Your task to perform on an android device: change your default location settings in chrome Image 0: 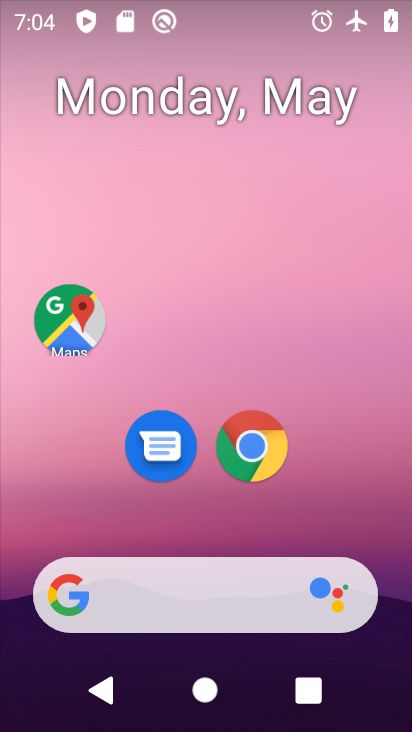
Step 0: click (261, 447)
Your task to perform on an android device: change your default location settings in chrome Image 1: 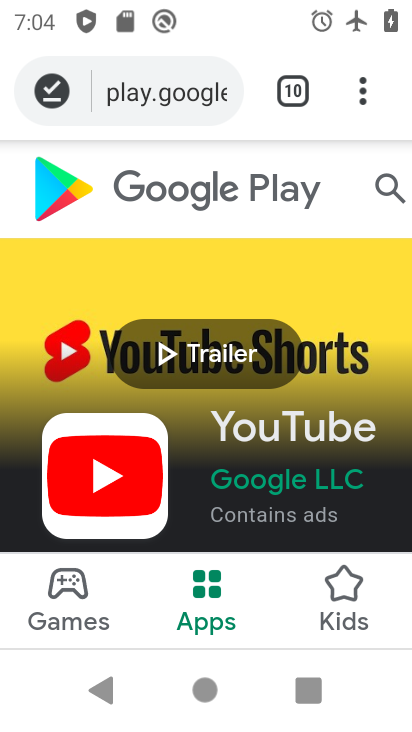
Step 1: click (361, 96)
Your task to perform on an android device: change your default location settings in chrome Image 2: 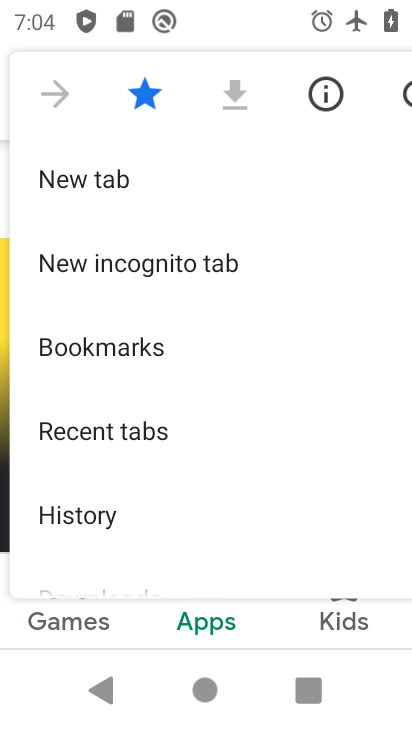
Step 2: drag from (190, 495) to (132, 293)
Your task to perform on an android device: change your default location settings in chrome Image 3: 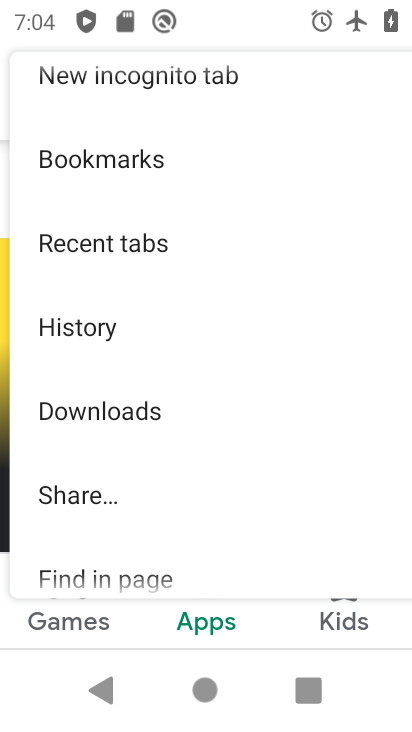
Step 3: drag from (157, 459) to (69, 104)
Your task to perform on an android device: change your default location settings in chrome Image 4: 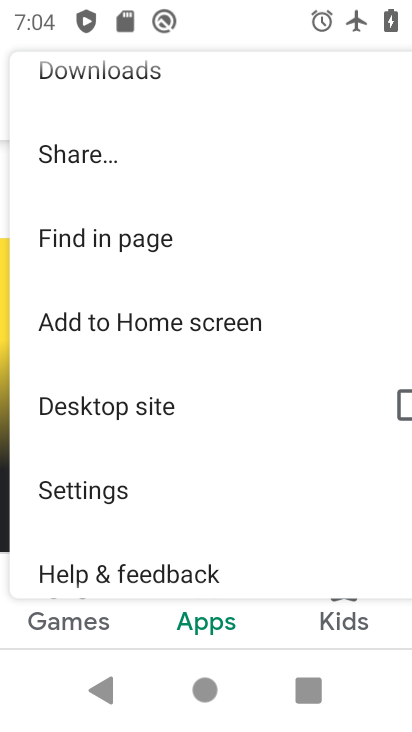
Step 4: click (103, 488)
Your task to perform on an android device: change your default location settings in chrome Image 5: 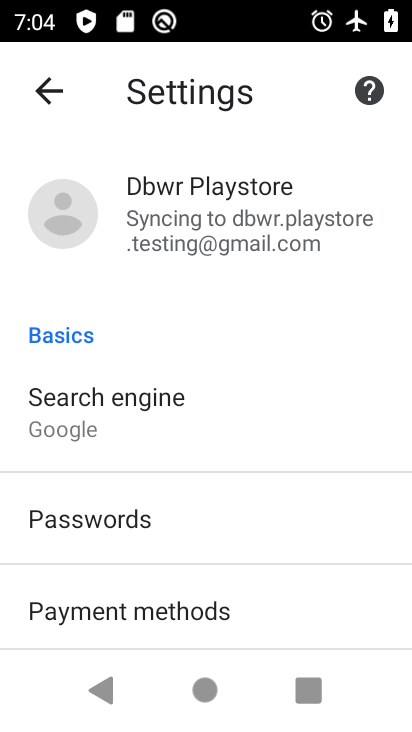
Step 5: drag from (189, 480) to (119, 218)
Your task to perform on an android device: change your default location settings in chrome Image 6: 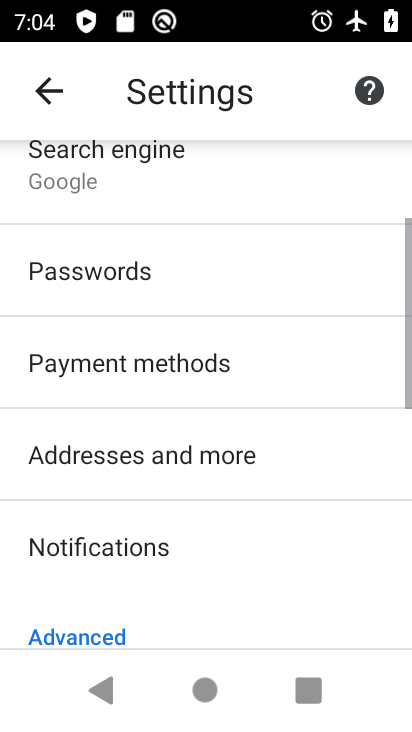
Step 6: drag from (222, 518) to (166, 81)
Your task to perform on an android device: change your default location settings in chrome Image 7: 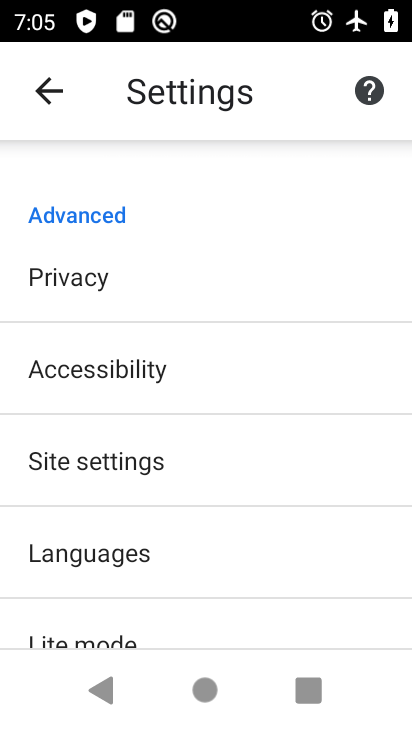
Step 7: click (82, 458)
Your task to perform on an android device: change your default location settings in chrome Image 8: 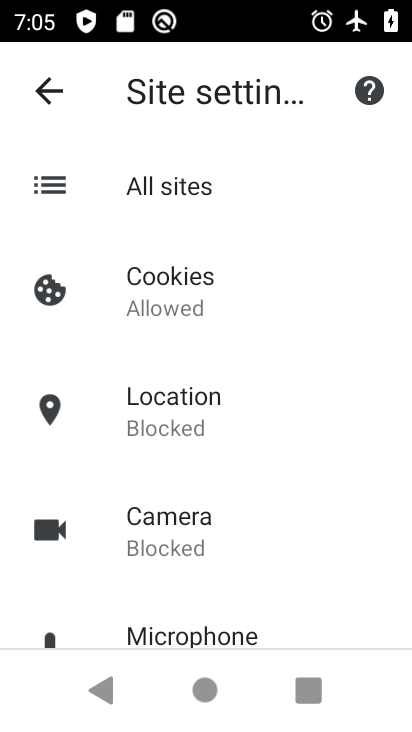
Step 8: click (156, 394)
Your task to perform on an android device: change your default location settings in chrome Image 9: 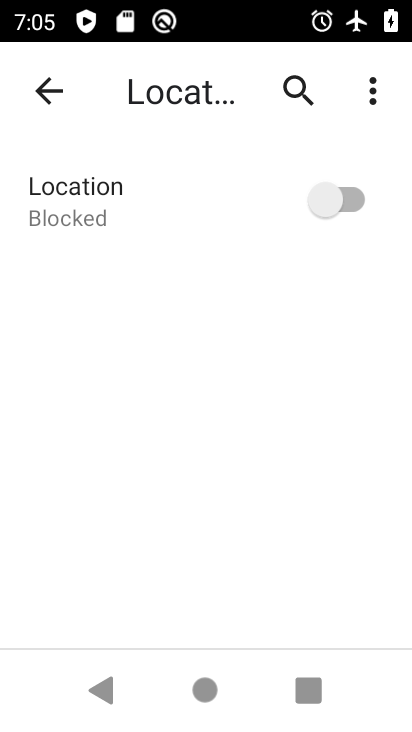
Step 9: click (335, 188)
Your task to perform on an android device: change your default location settings in chrome Image 10: 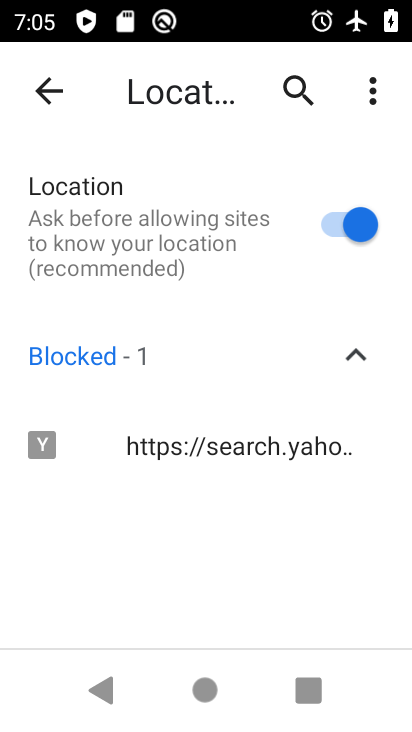
Step 10: task complete